Your task to perform on an android device: change keyboard looks Image 0: 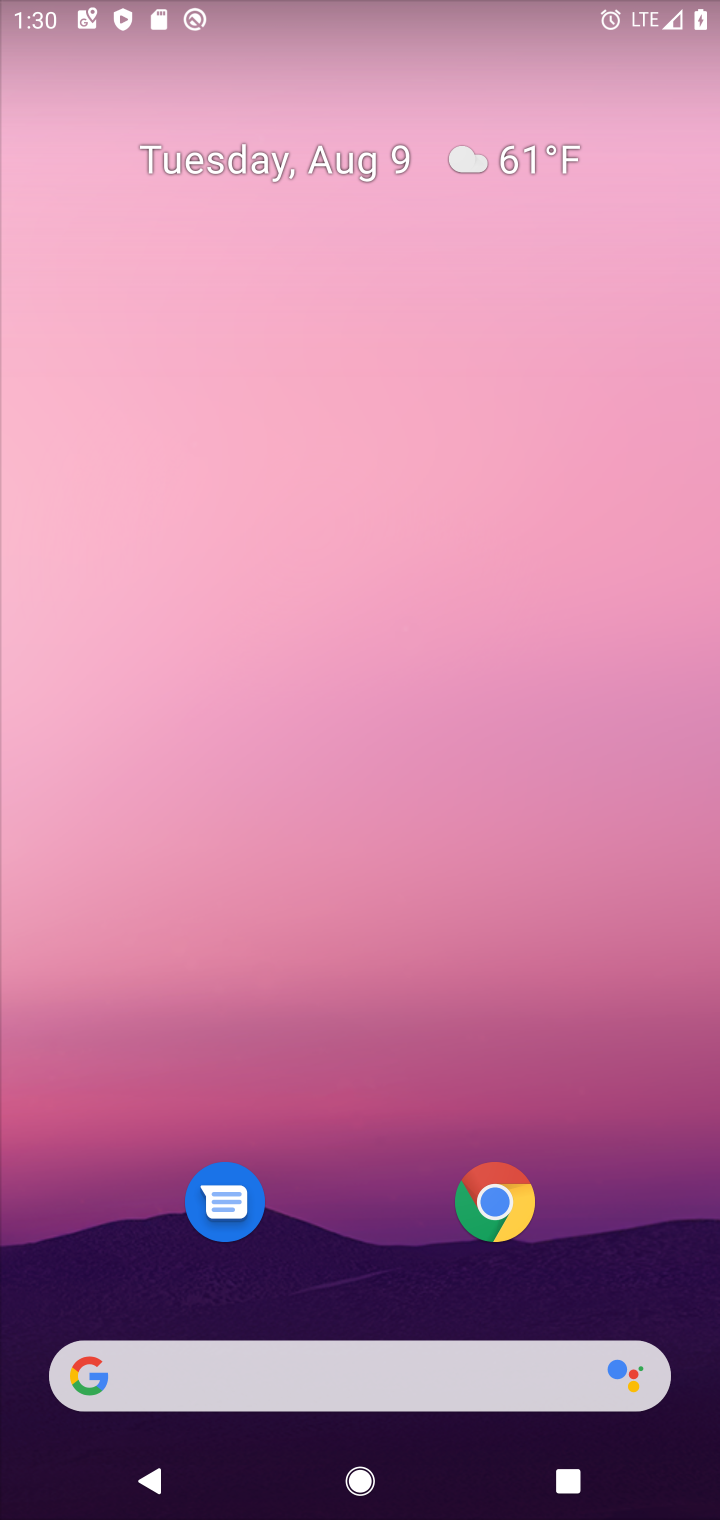
Step 0: drag from (318, 554) to (262, 436)
Your task to perform on an android device: change keyboard looks Image 1: 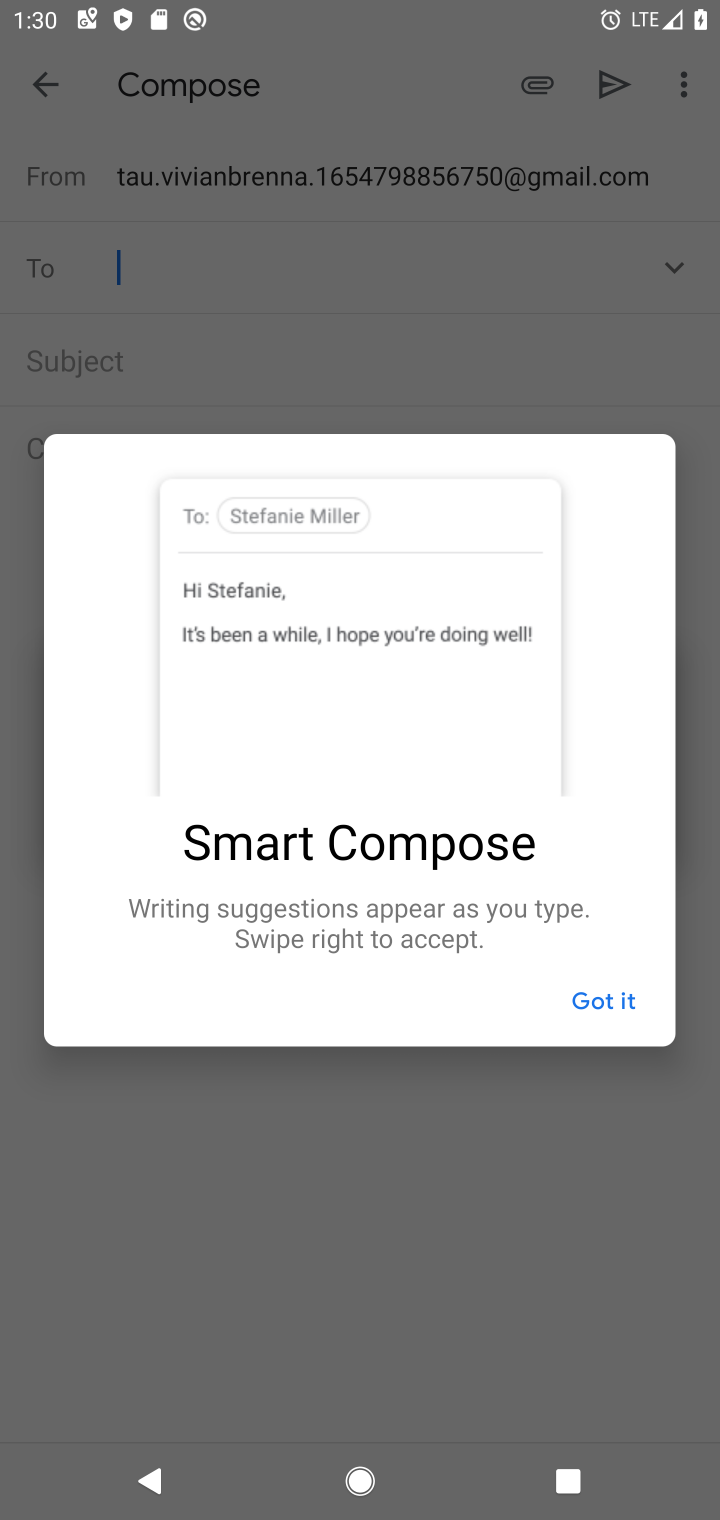
Step 1: press home button
Your task to perform on an android device: change keyboard looks Image 2: 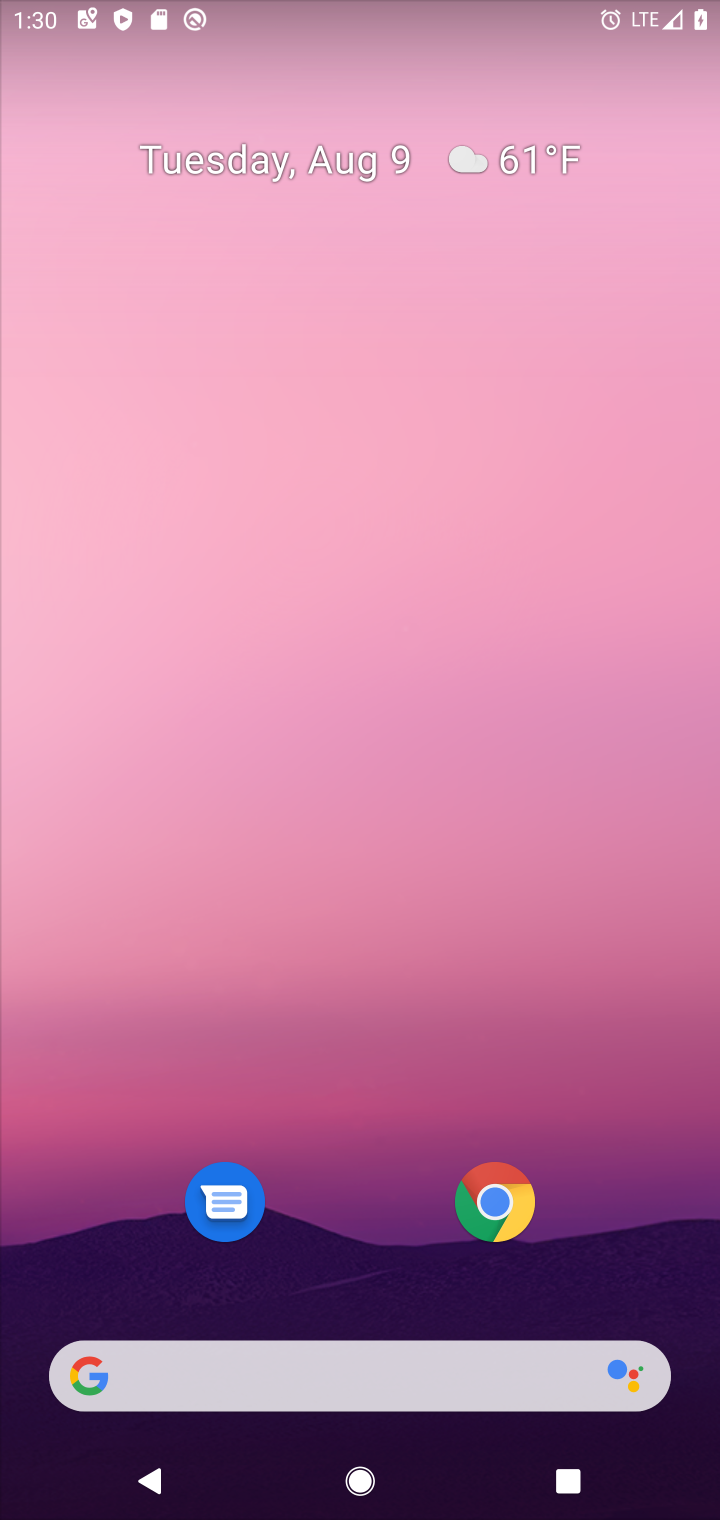
Step 2: drag from (366, 921) to (386, 201)
Your task to perform on an android device: change keyboard looks Image 3: 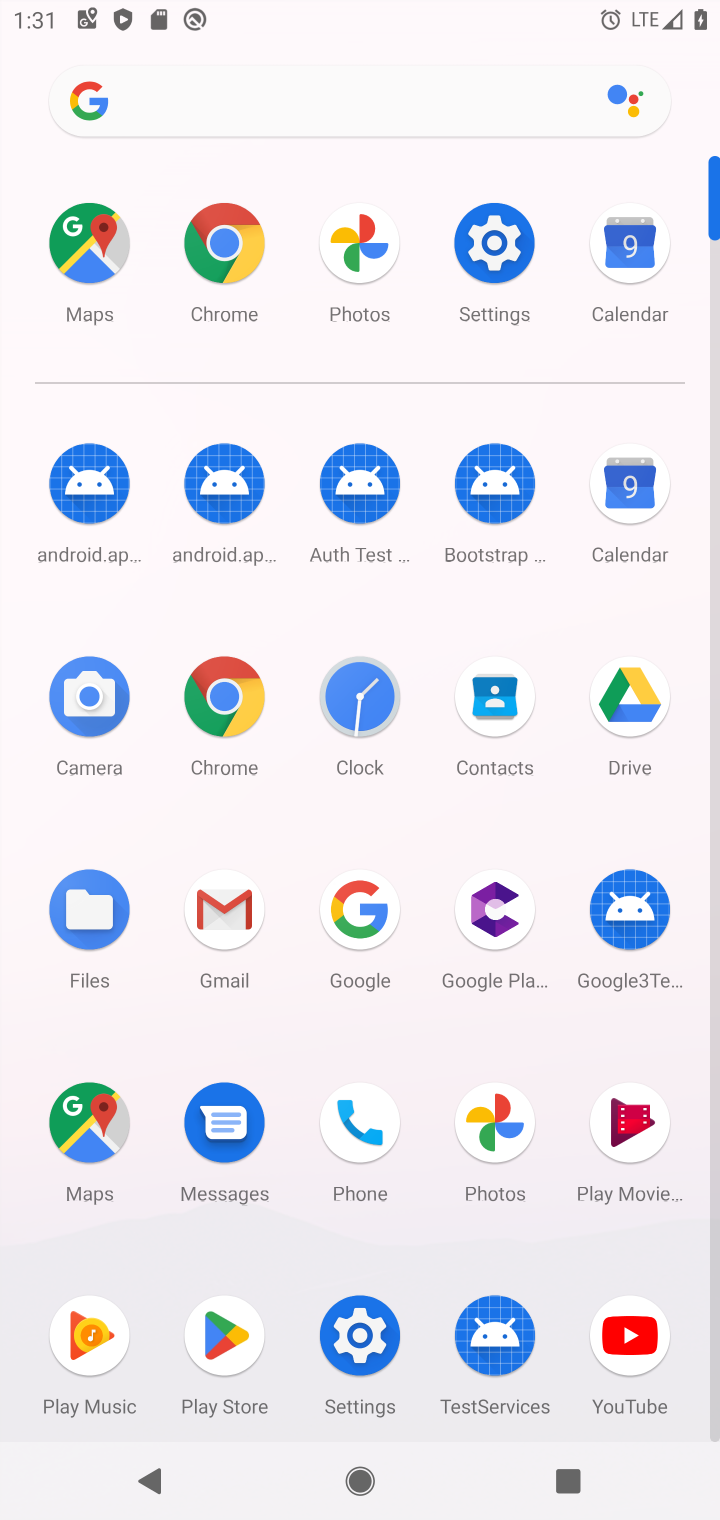
Step 3: click (491, 248)
Your task to perform on an android device: change keyboard looks Image 4: 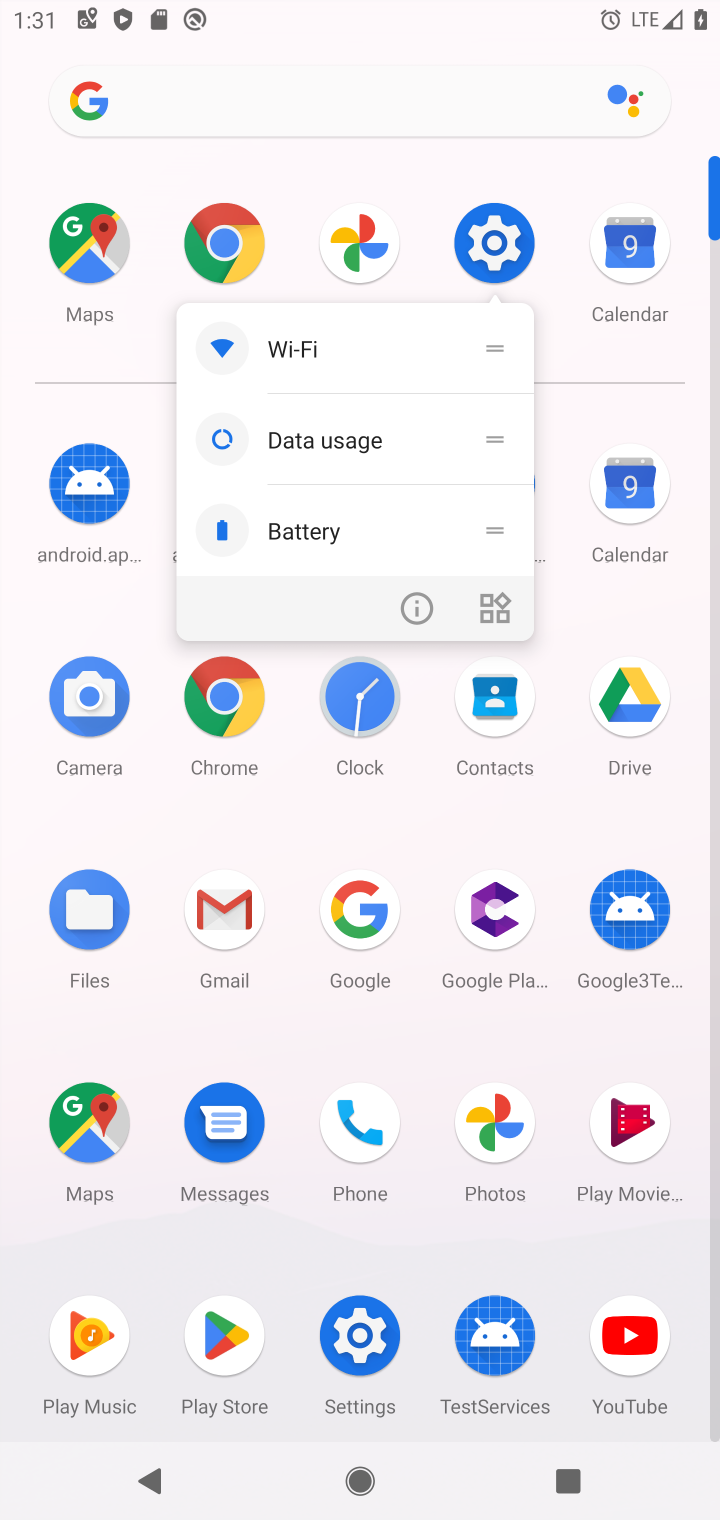
Step 4: click (484, 245)
Your task to perform on an android device: change keyboard looks Image 5: 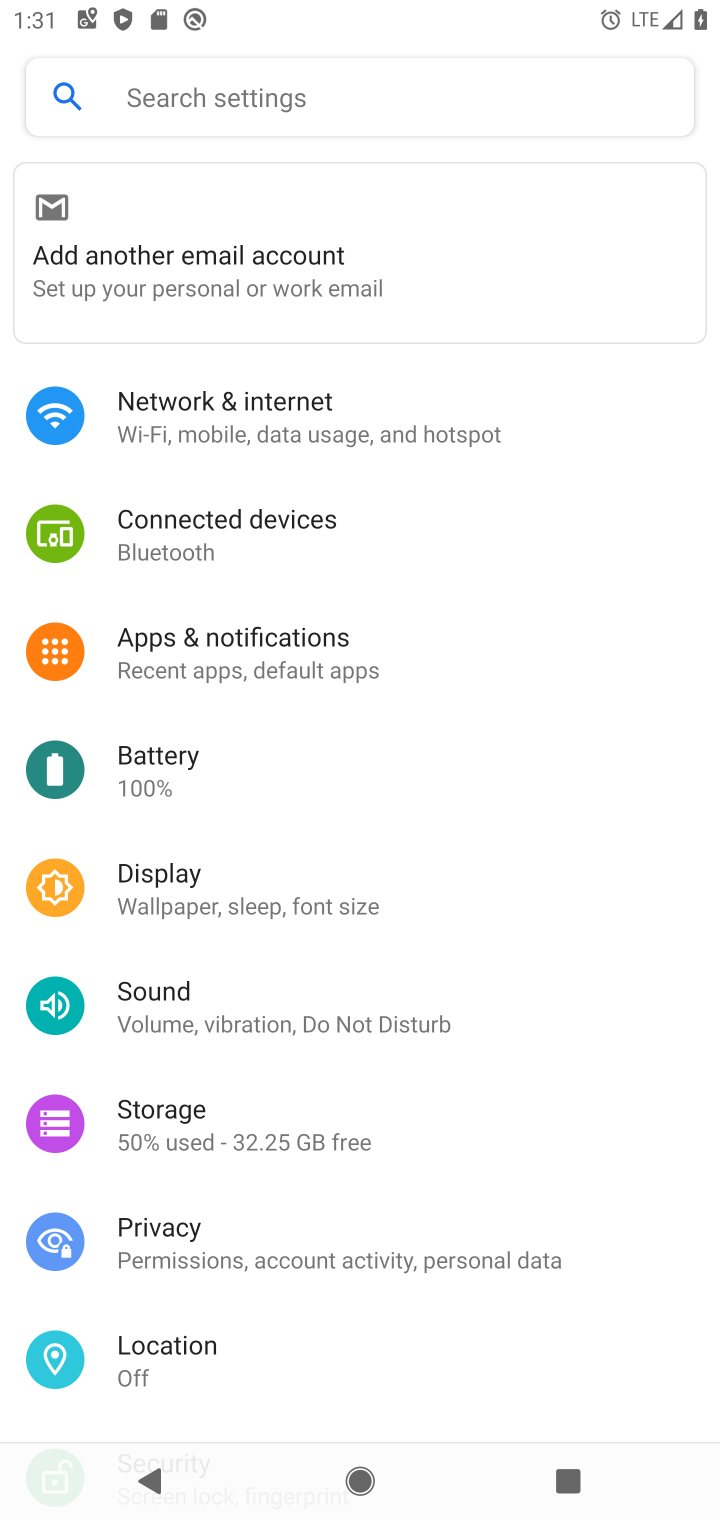
Step 5: drag from (253, 1205) to (304, 857)
Your task to perform on an android device: change keyboard looks Image 6: 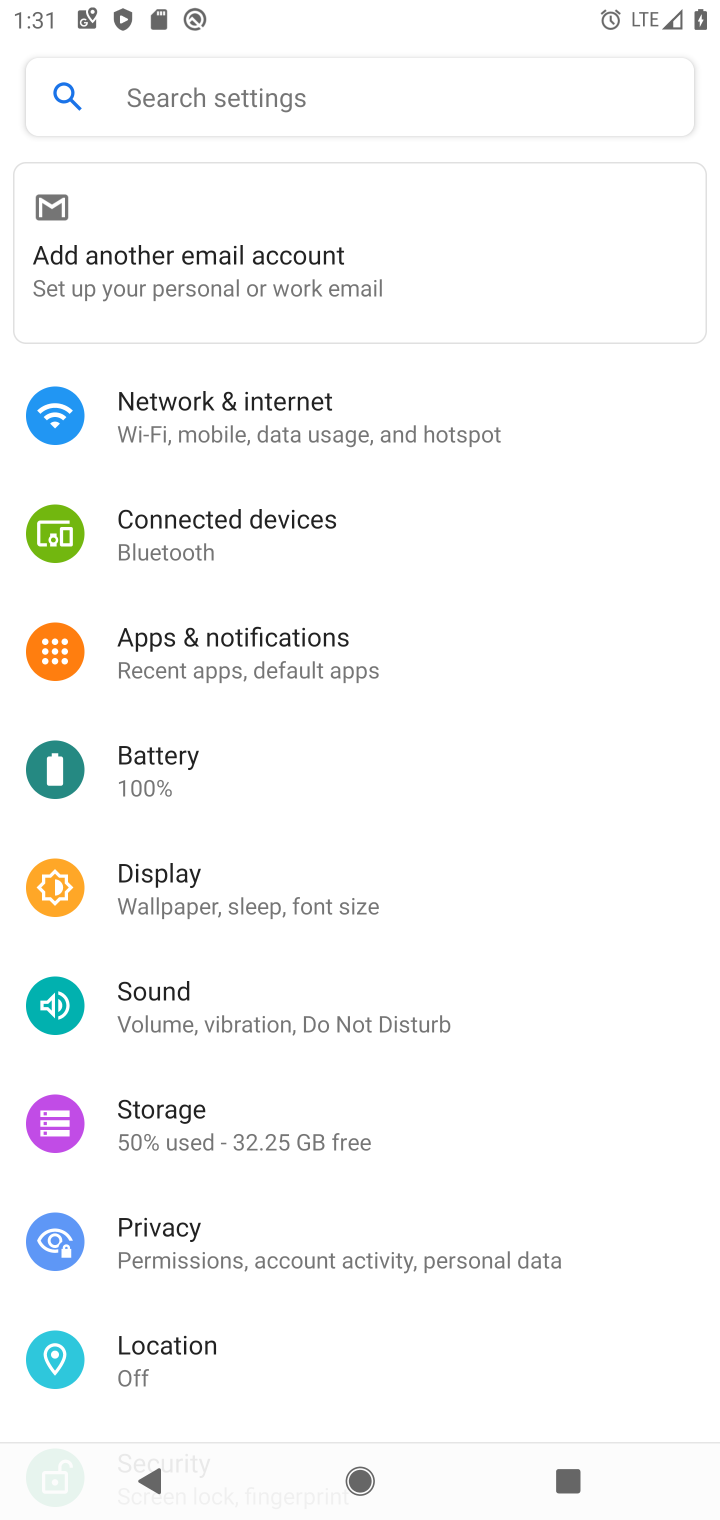
Step 6: drag from (272, 1082) to (257, 529)
Your task to perform on an android device: change keyboard looks Image 7: 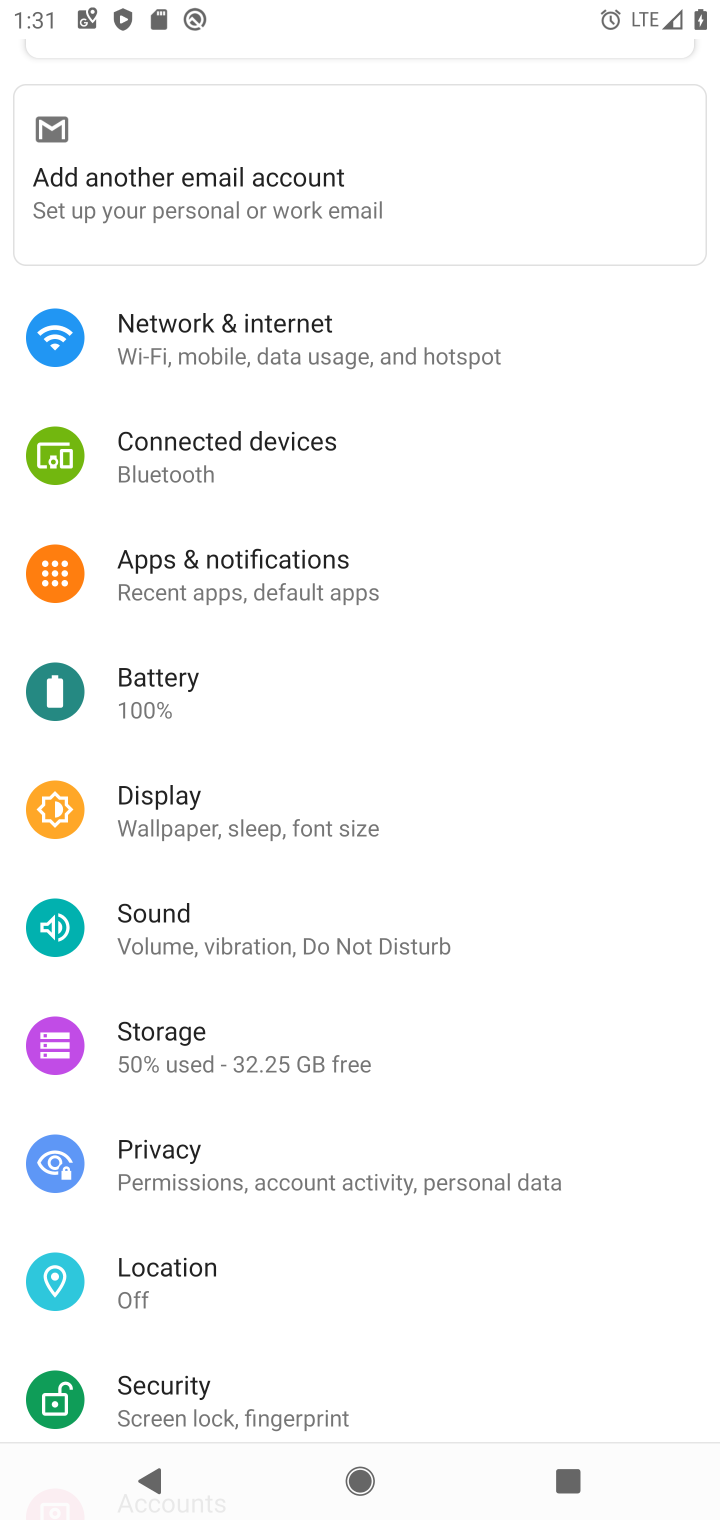
Step 7: drag from (266, 1096) to (298, 645)
Your task to perform on an android device: change keyboard looks Image 8: 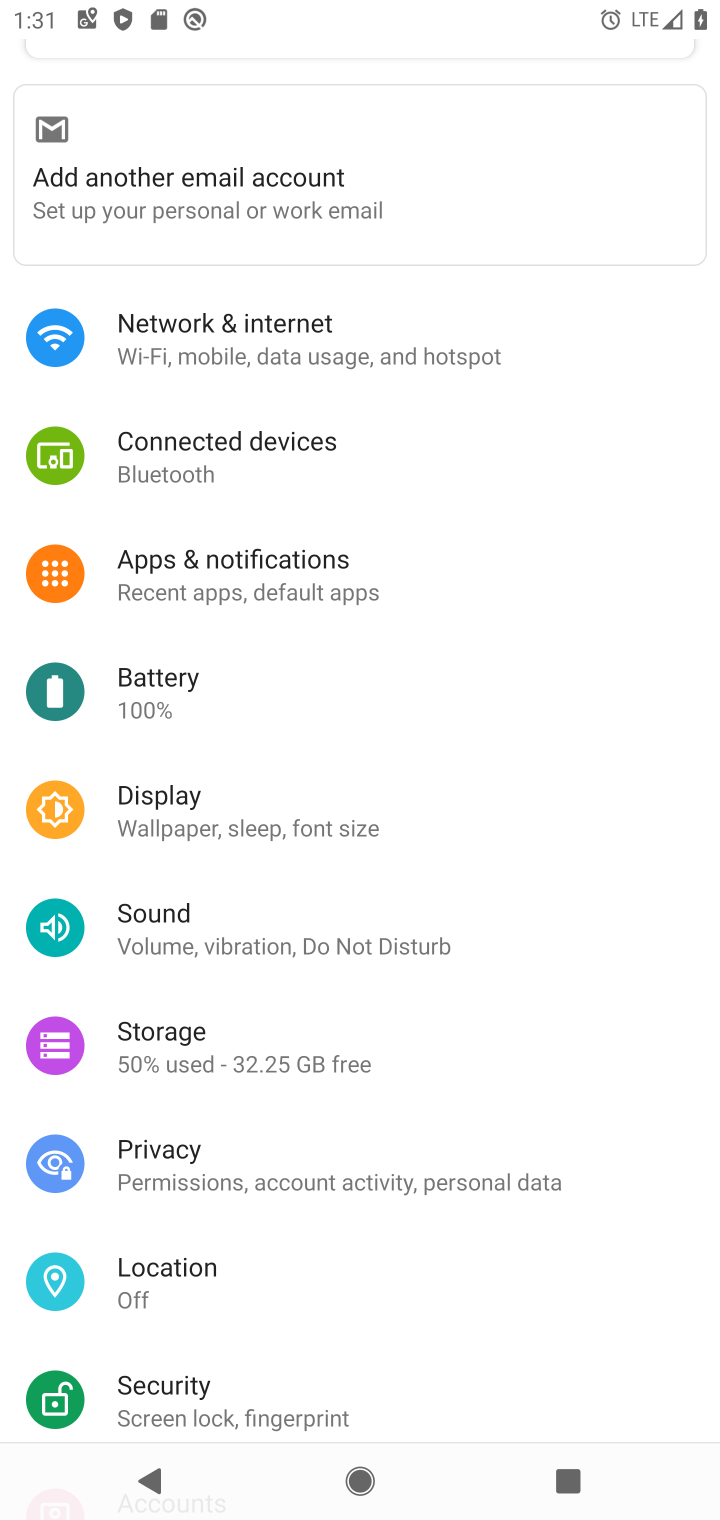
Step 8: drag from (216, 1318) to (180, 723)
Your task to perform on an android device: change keyboard looks Image 9: 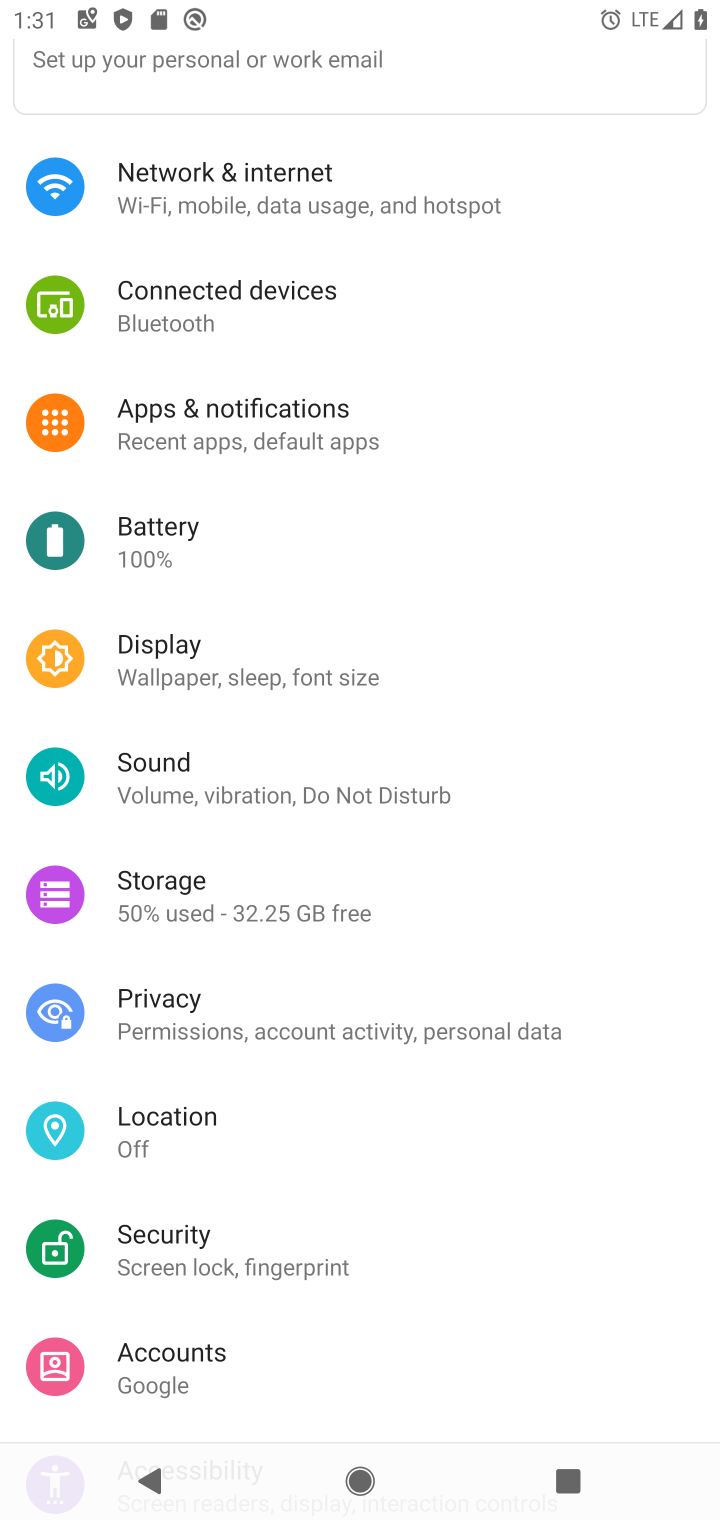
Step 9: drag from (303, 1287) to (370, 661)
Your task to perform on an android device: change keyboard looks Image 10: 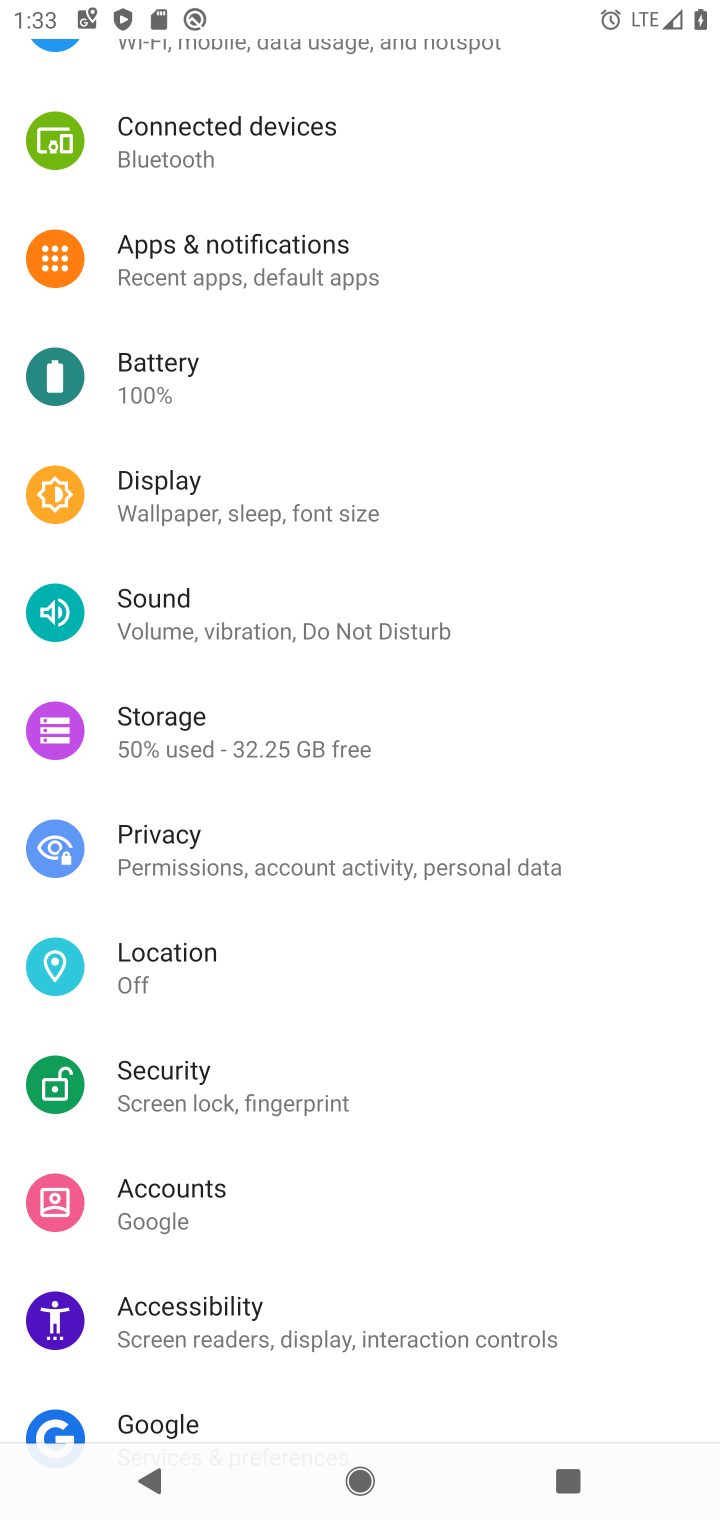
Step 10: drag from (242, 1253) to (251, 929)
Your task to perform on an android device: change keyboard looks Image 11: 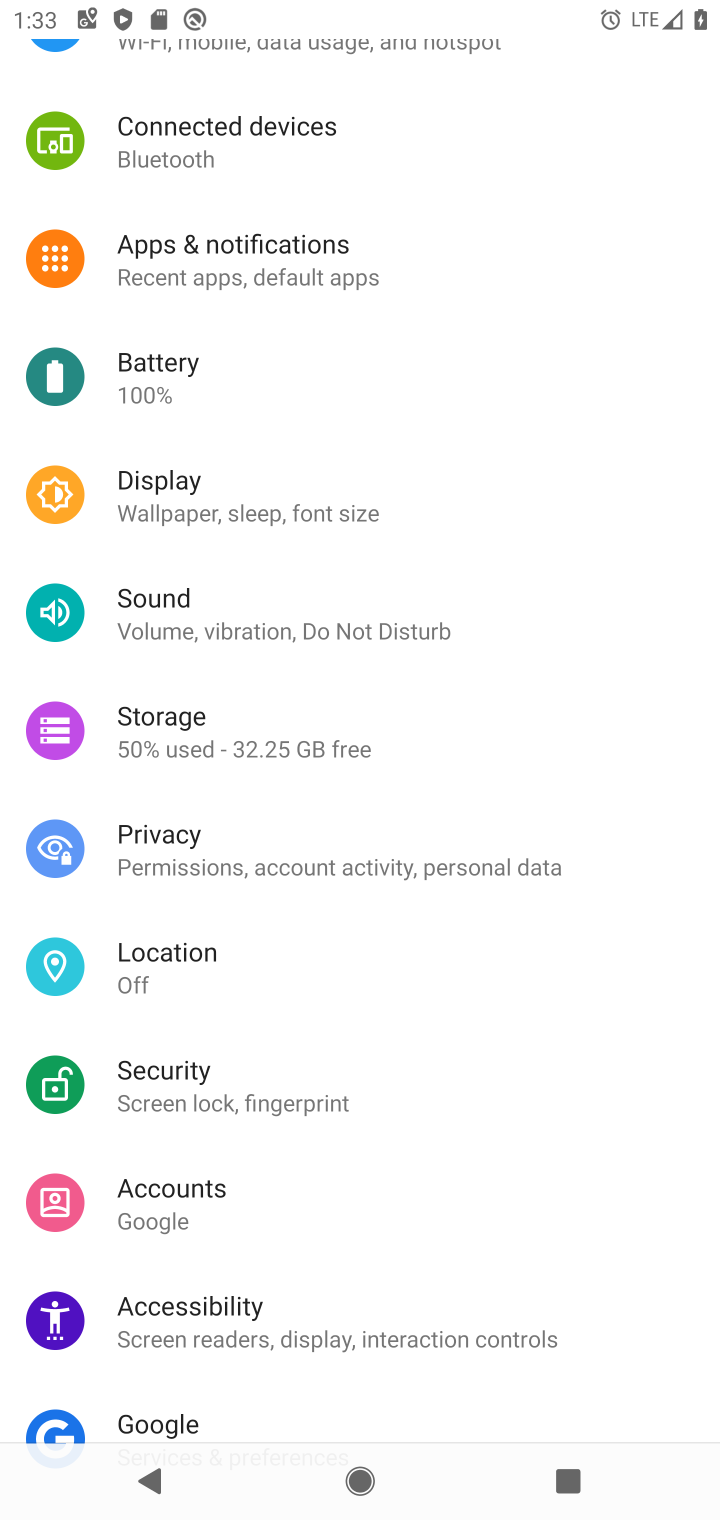
Step 11: drag from (277, 1221) to (329, 250)
Your task to perform on an android device: change keyboard looks Image 12: 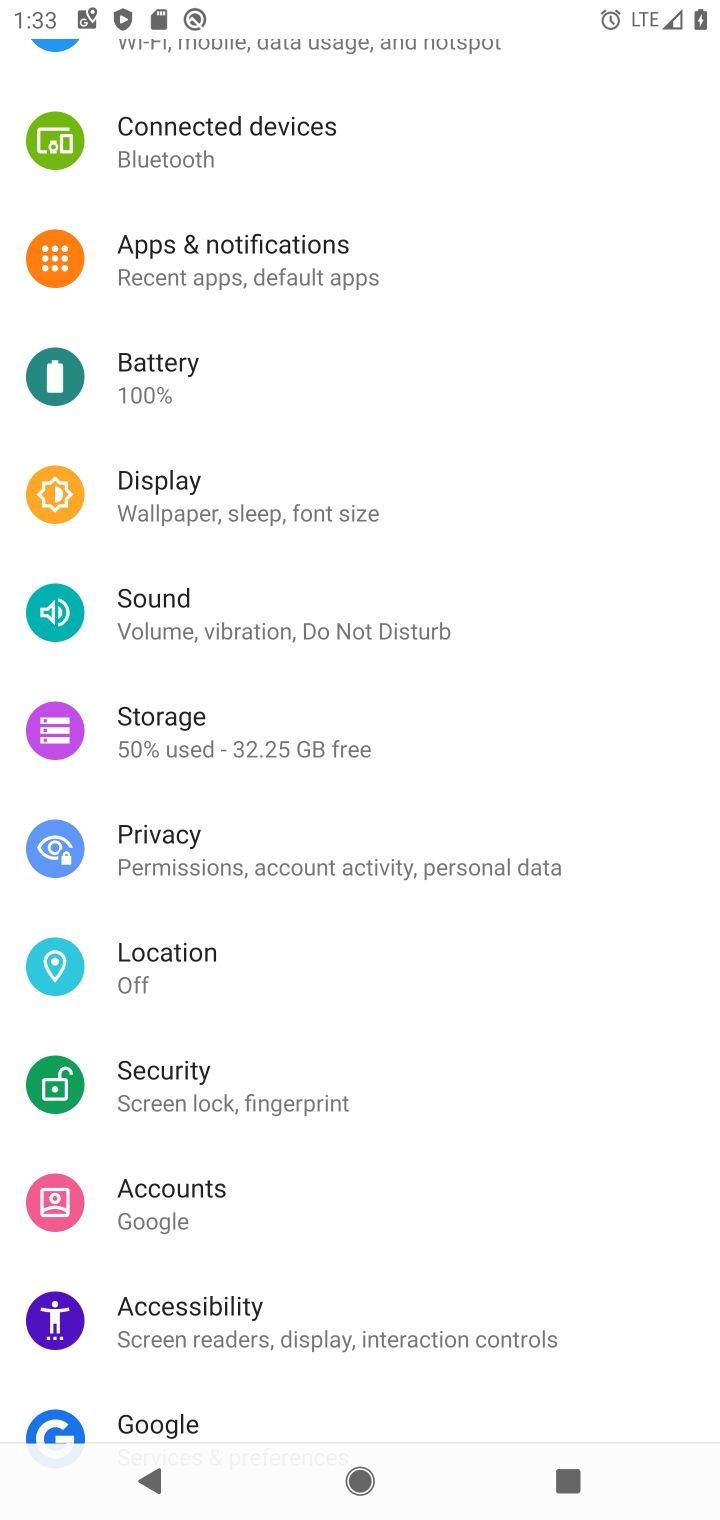
Step 12: drag from (307, 935) to (307, 474)
Your task to perform on an android device: change keyboard looks Image 13: 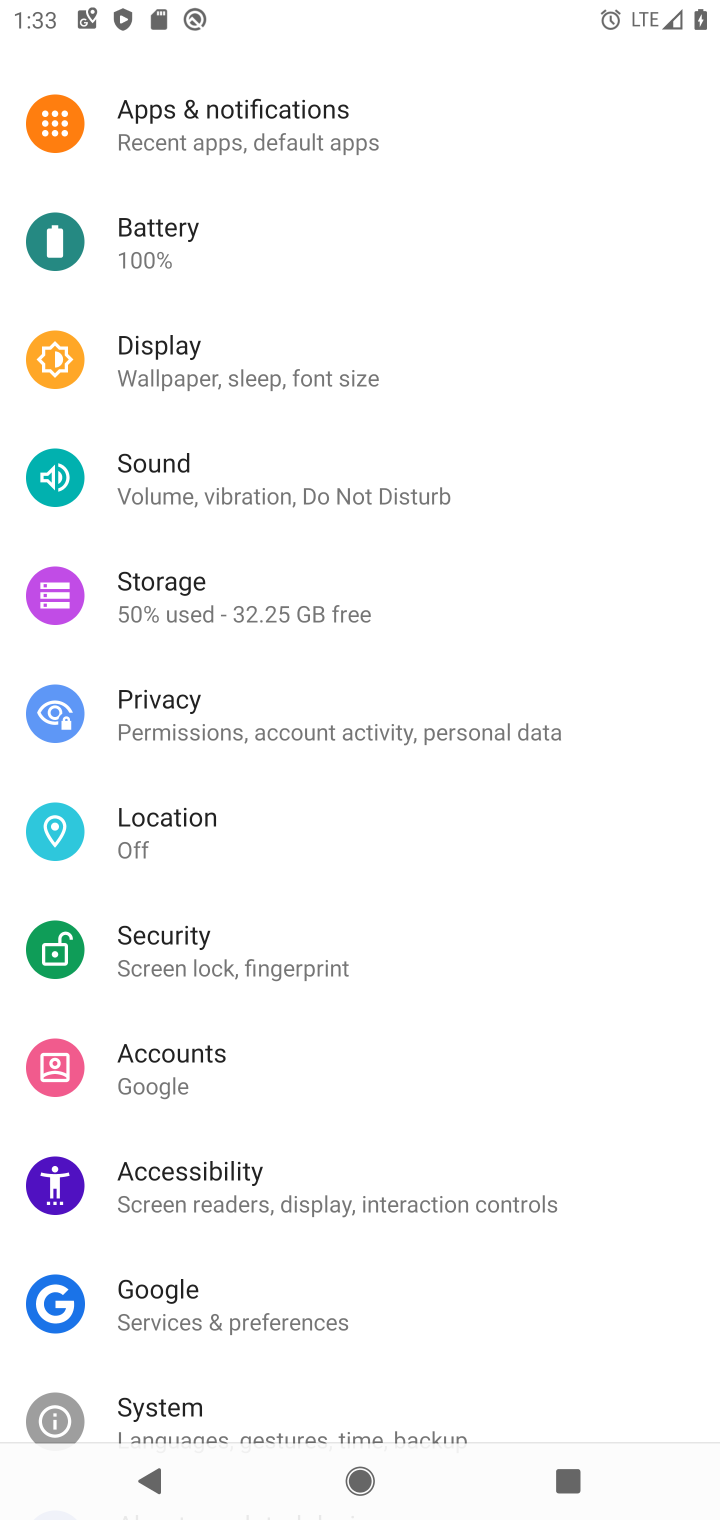
Step 13: click (261, 1424)
Your task to perform on an android device: change keyboard looks Image 14: 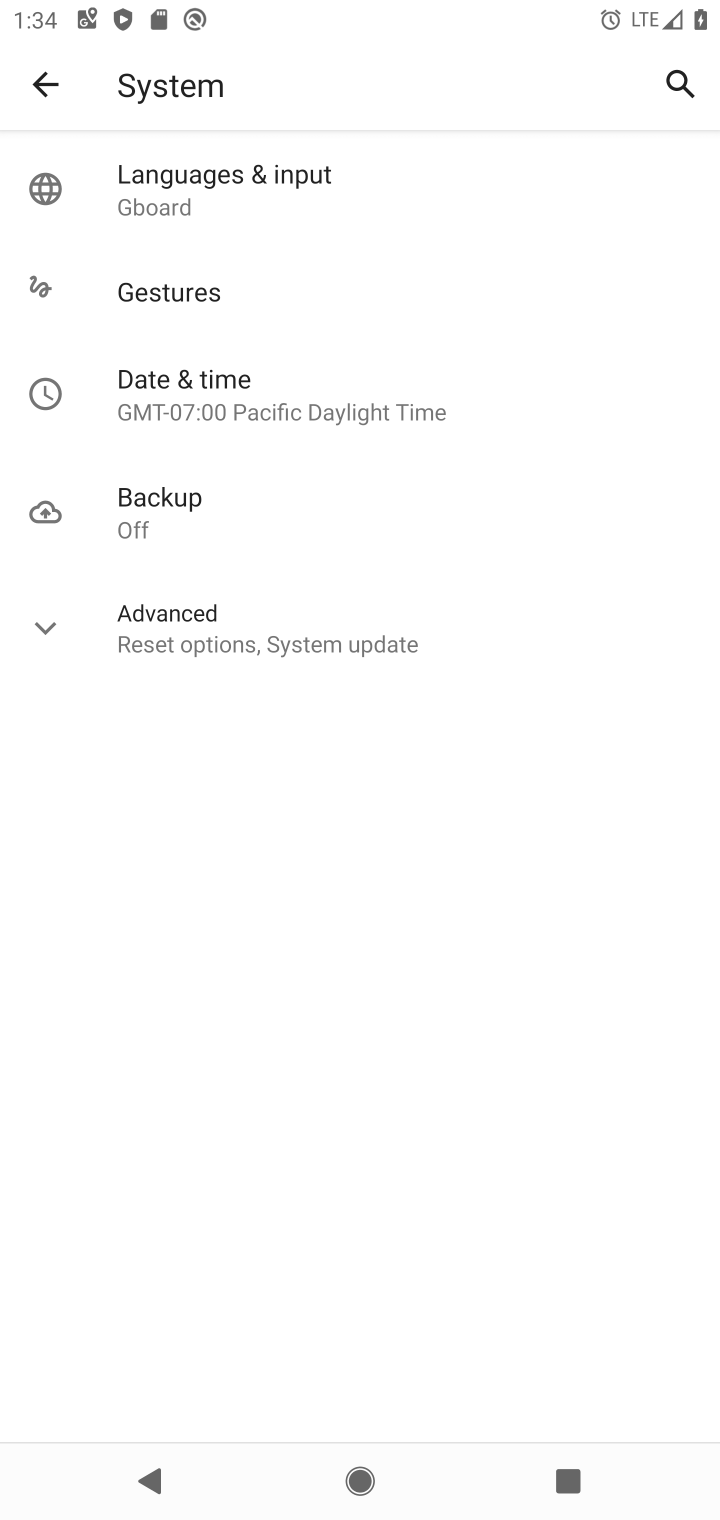
Step 14: click (174, 214)
Your task to perform on an android device: change keyboard looks Image 15: 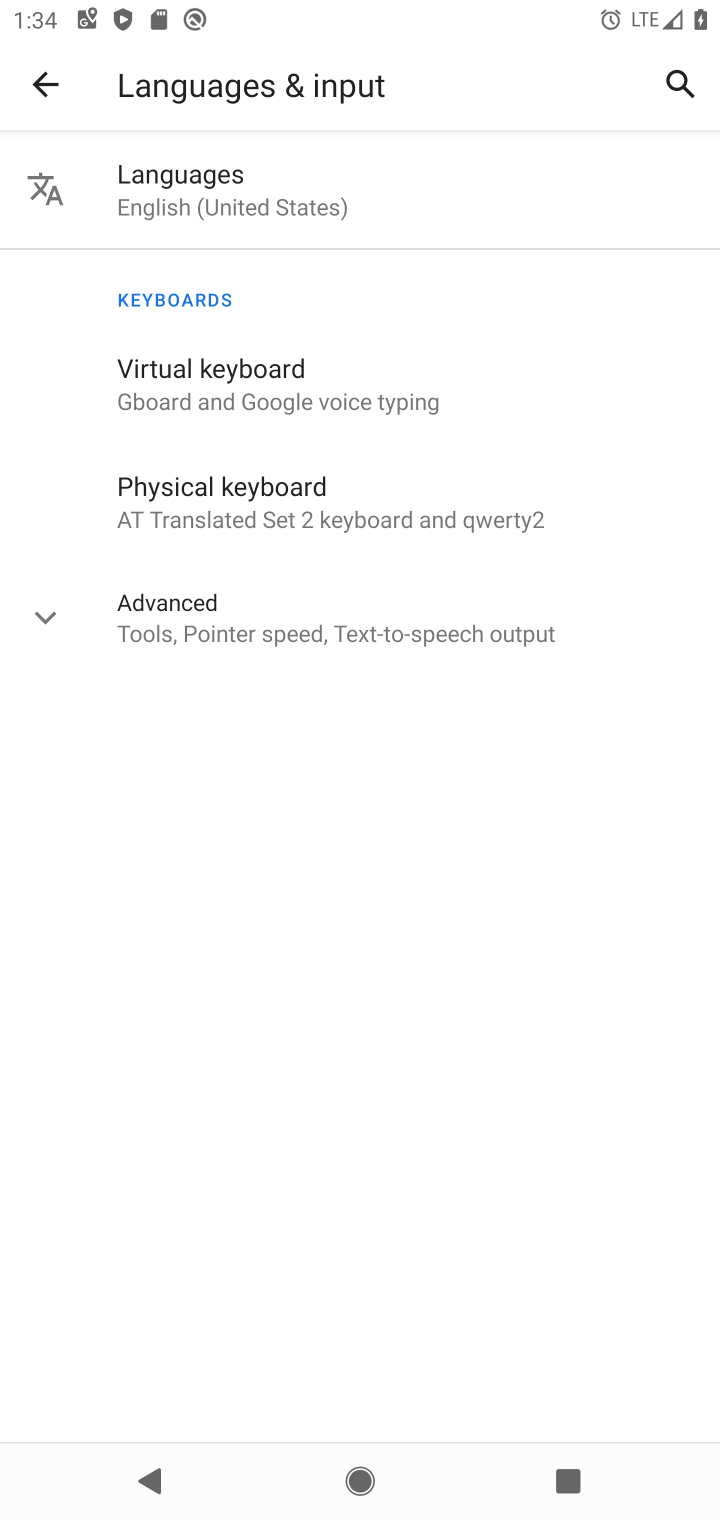
Step 15: click (183, 394)
Your task to perform on an android device: change keyboard looks Image 16: 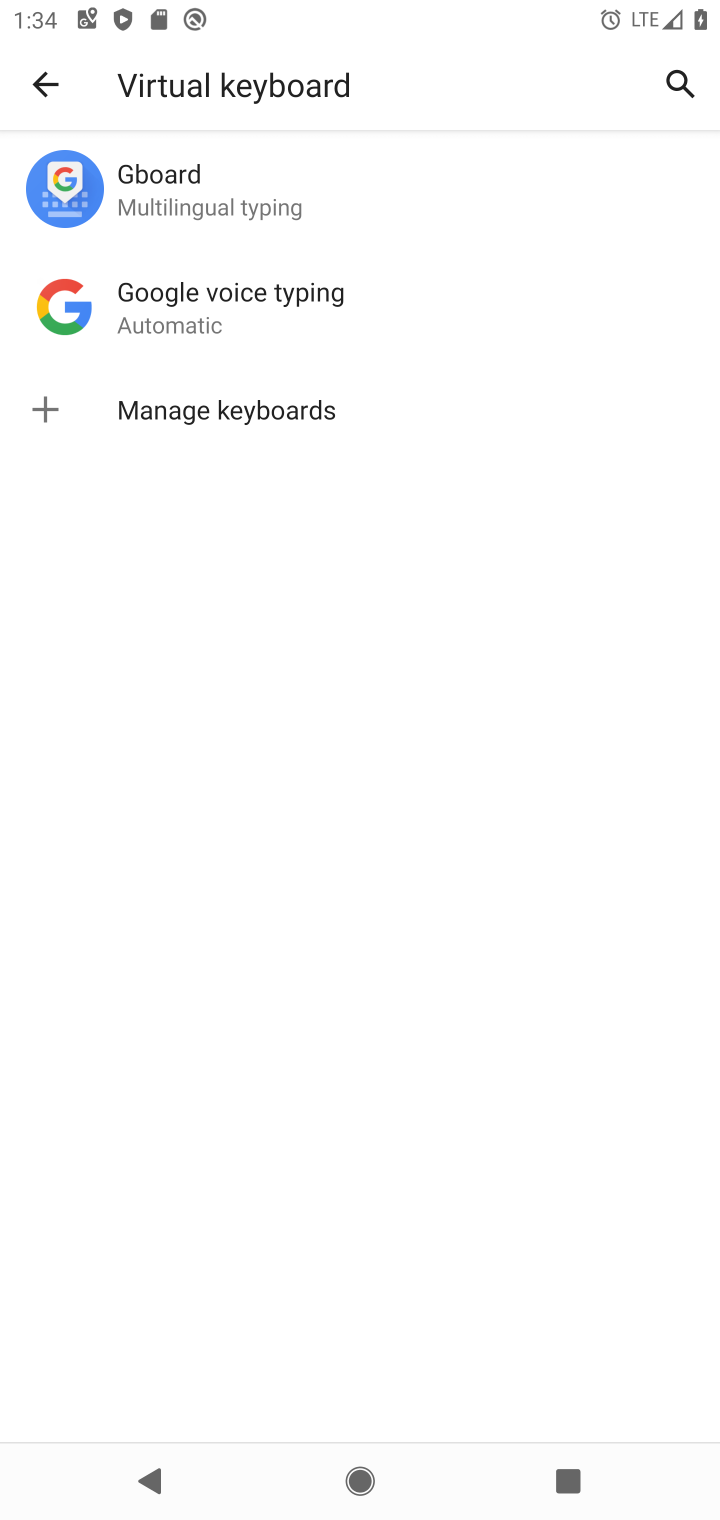
Step 16: click (163, 174)
Your task to perform on an android device: change keyboard looks Image 17: 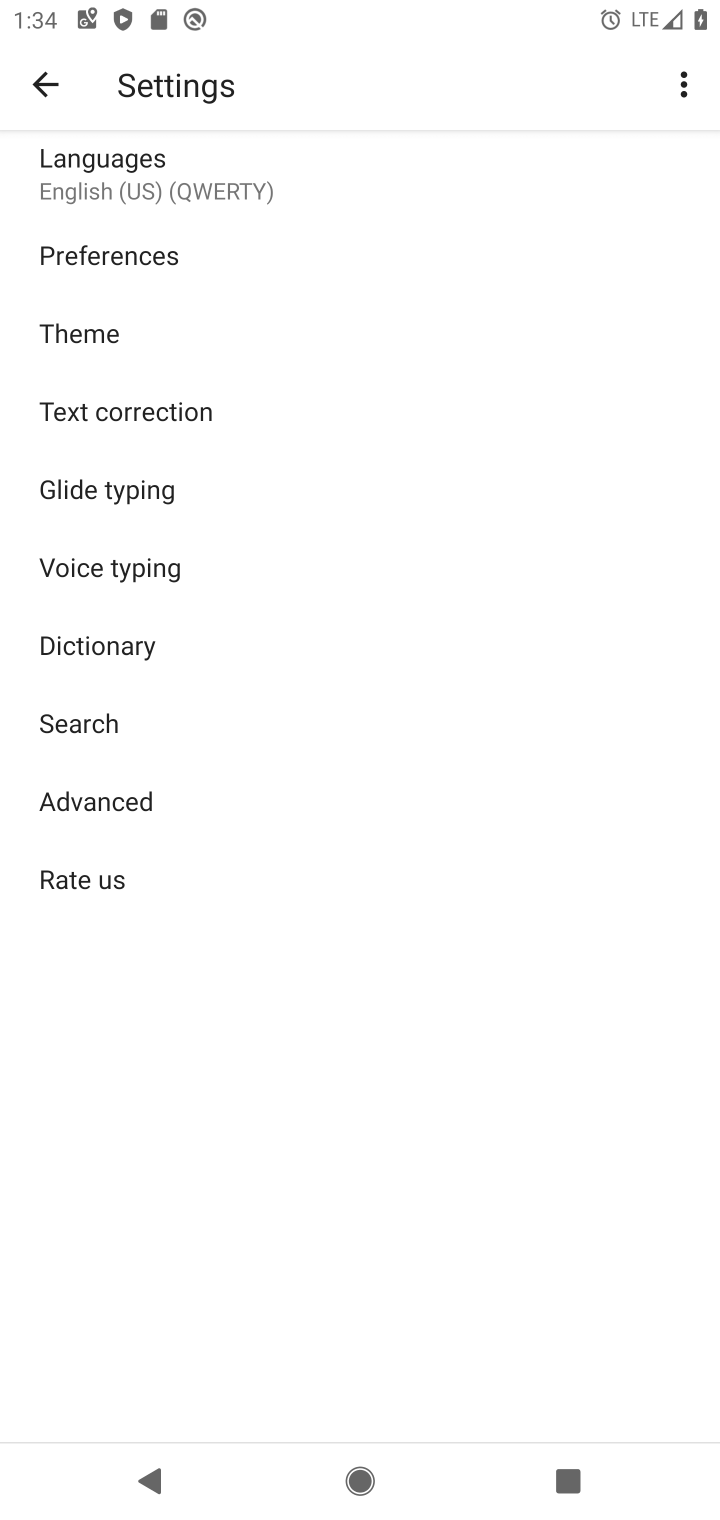
Step 17: click (104, 334)
Your task to perform on an android device: change keyboard looks Image 18: 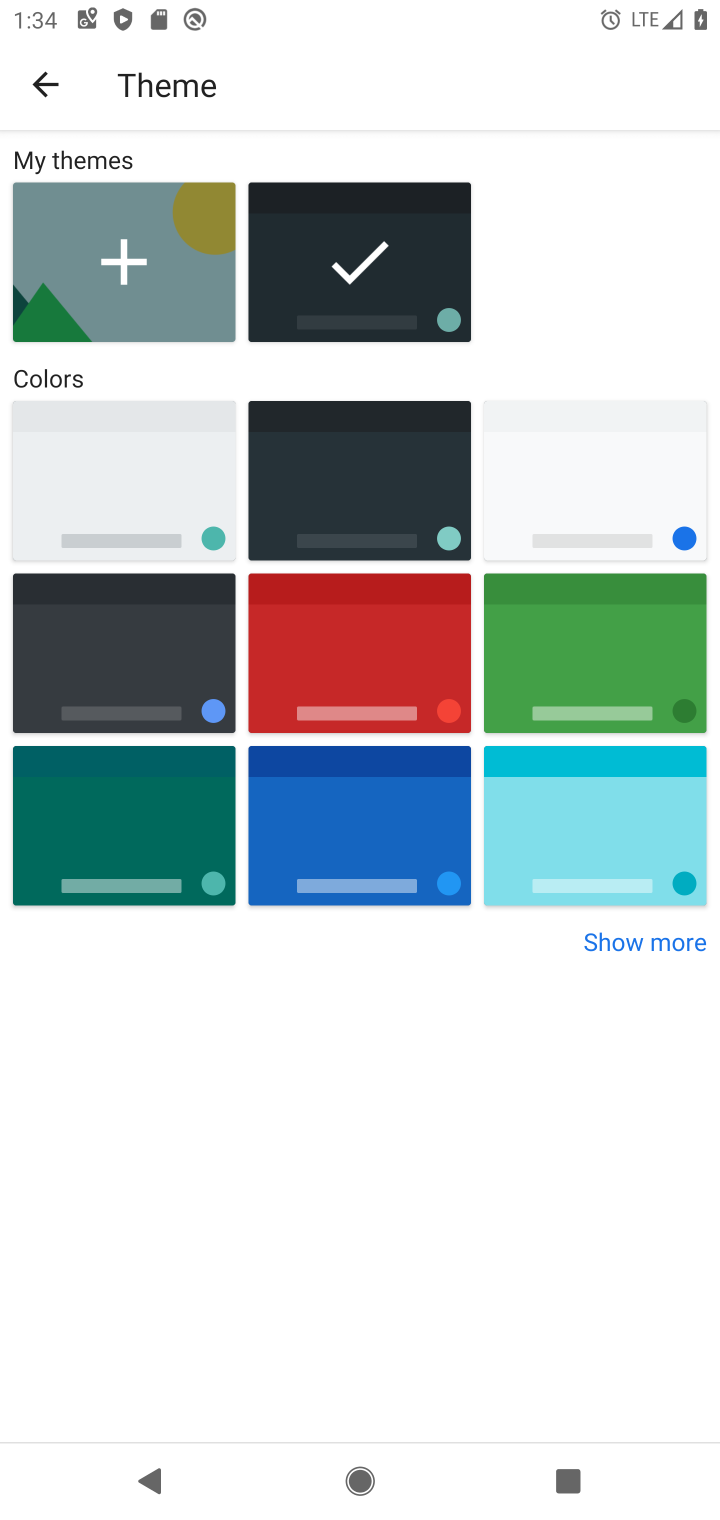
Step 18: click (358, 427)
Your task to perform on an android device: change keyboard looks Image 19: 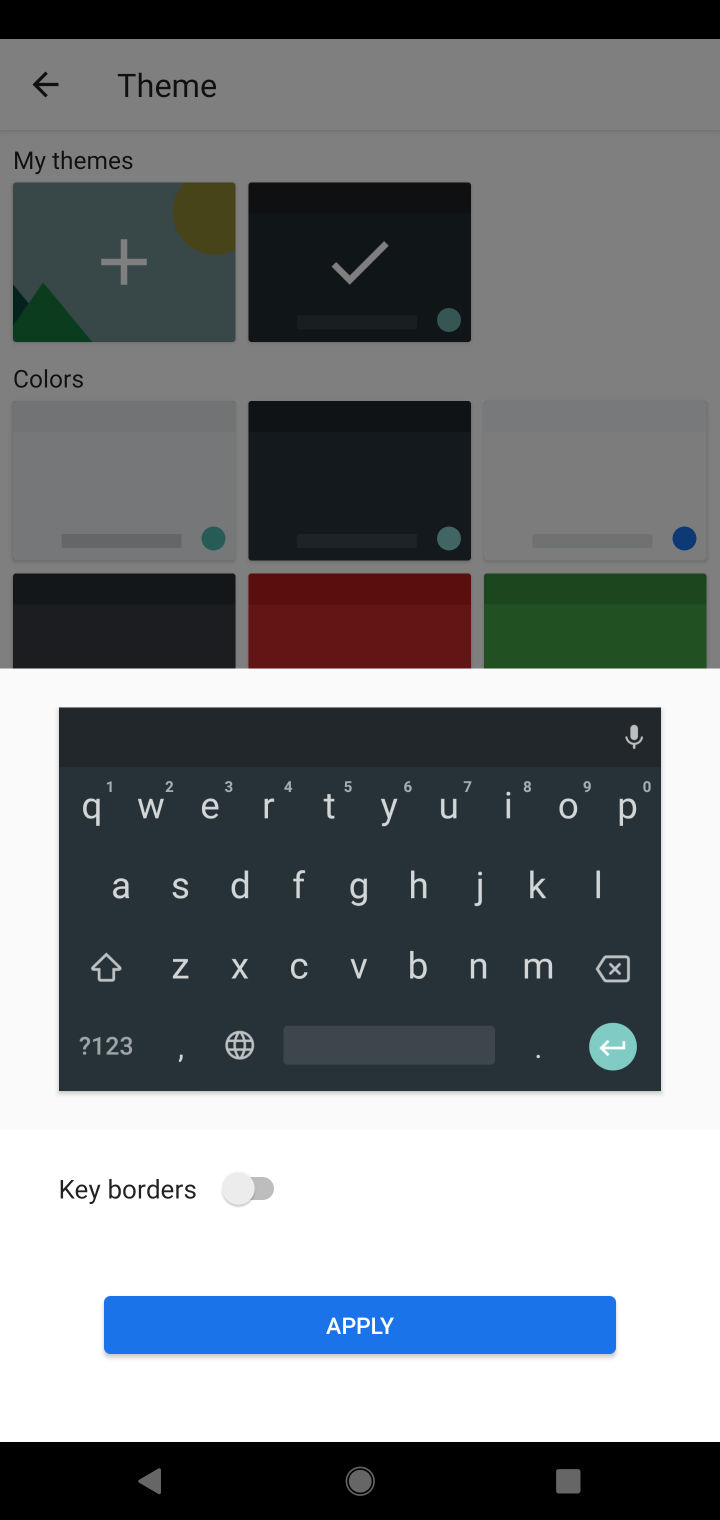
Step 19: click (383, 1298)
Your task to perform on an android device: change keyboard looks Image 20: 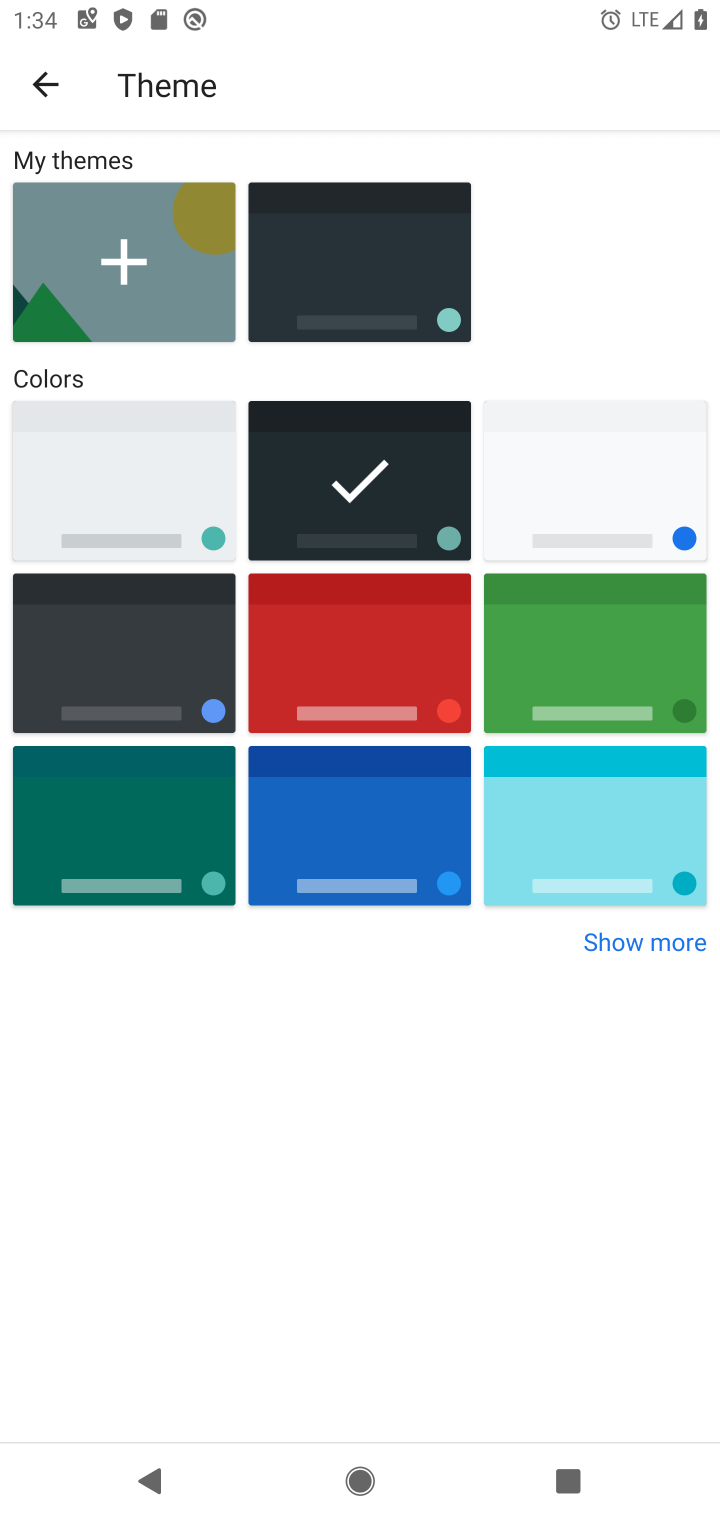
Step 20: task complete